Your task to perform on an android device: Open maps Image 0: 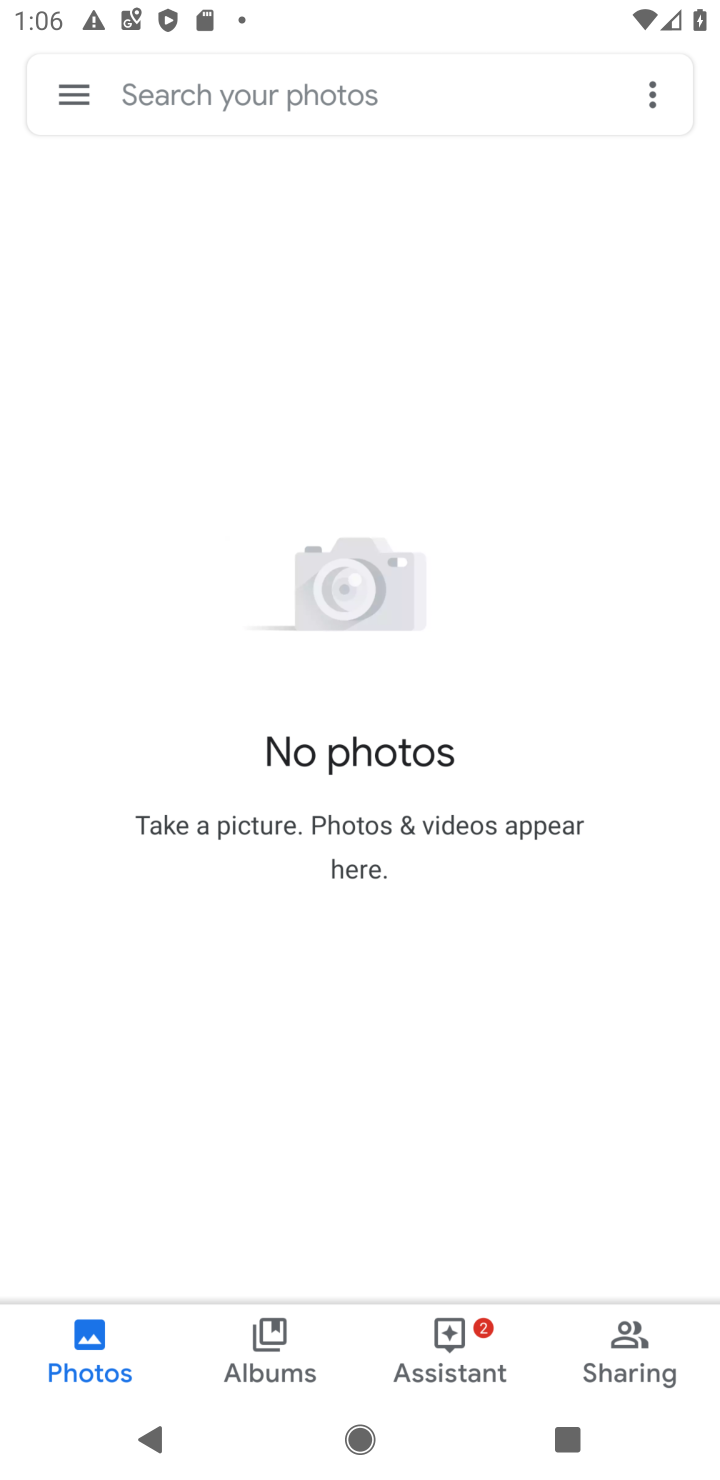
Step 0: press home button
Your task to perform on an android device: Open maps Image 1: 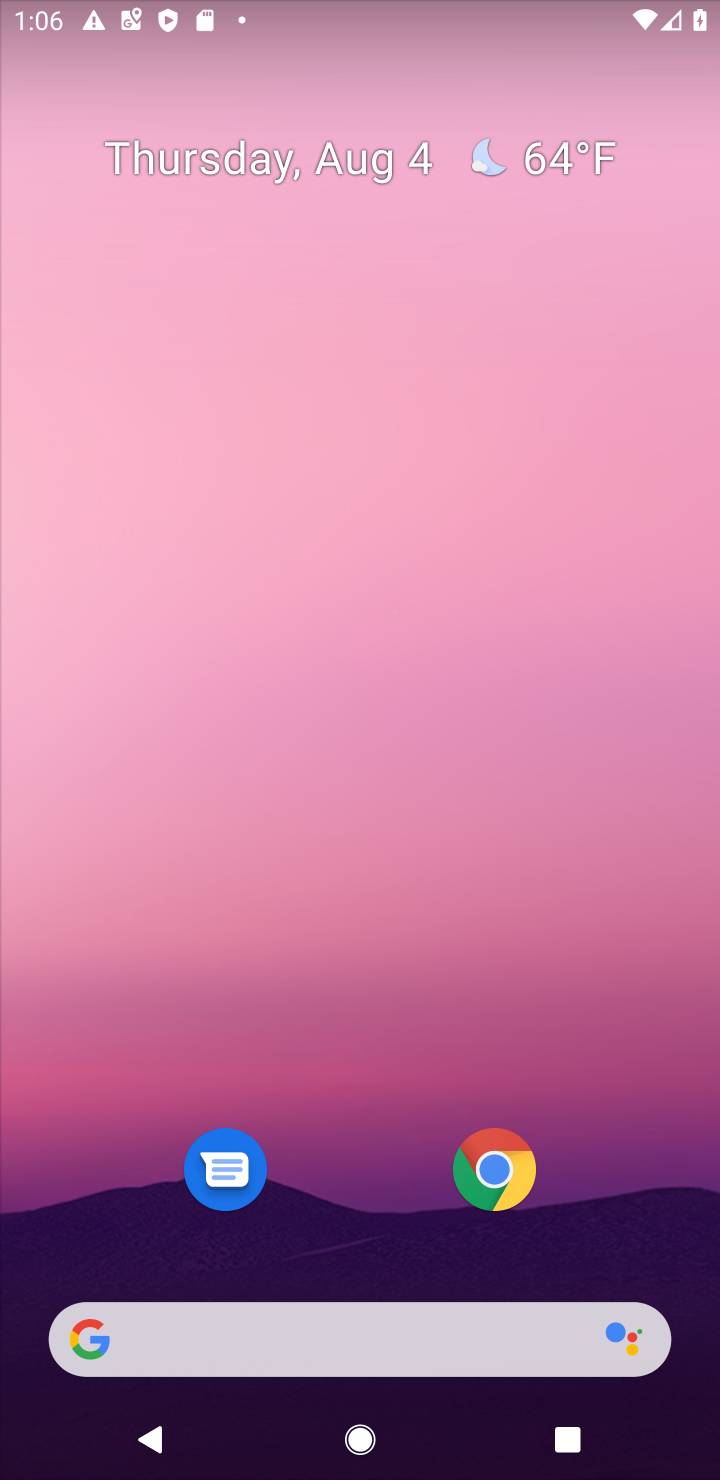
Step 1: drag from (304, 1071) to (320, 60)
Your task to perform on an android device: Open maps Image 2: 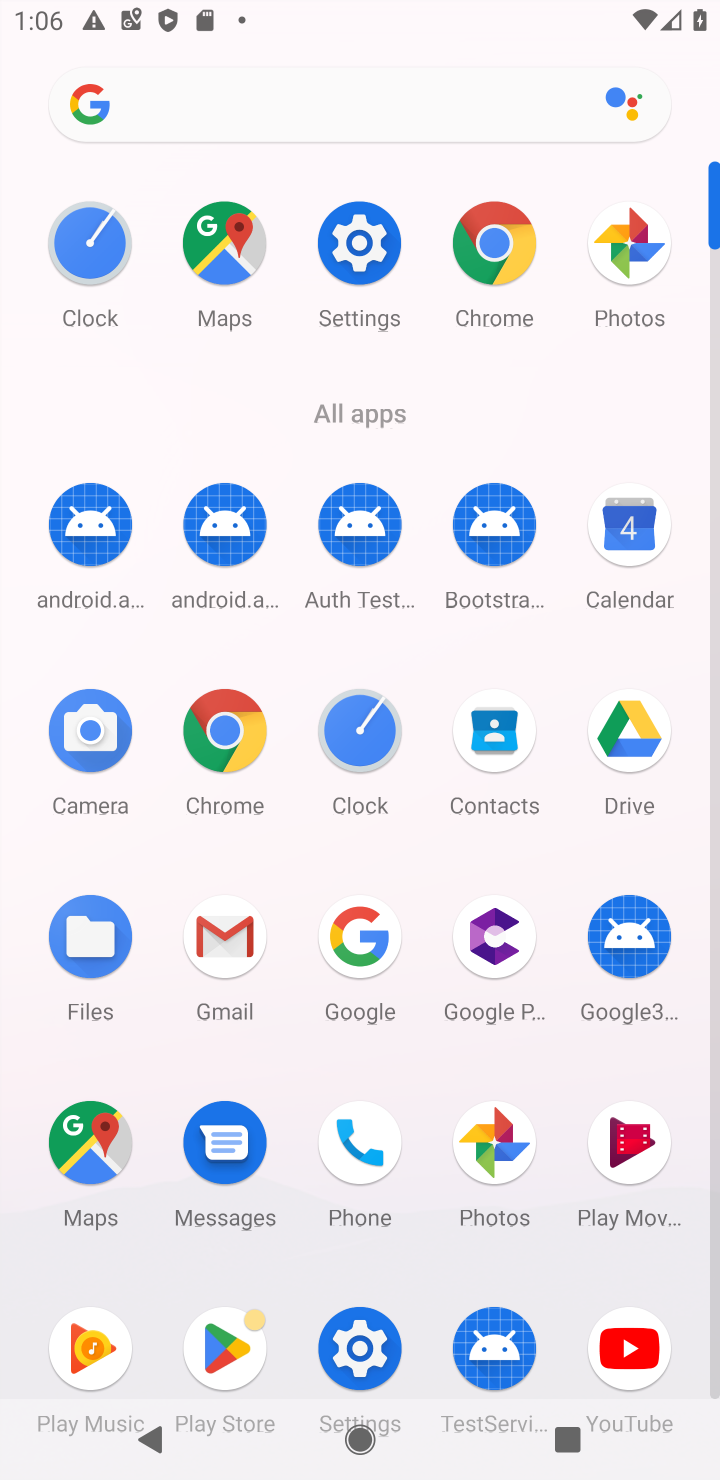
Step 2: click (232, 304)
Your task to perform on an android device: Open maps Image 3: 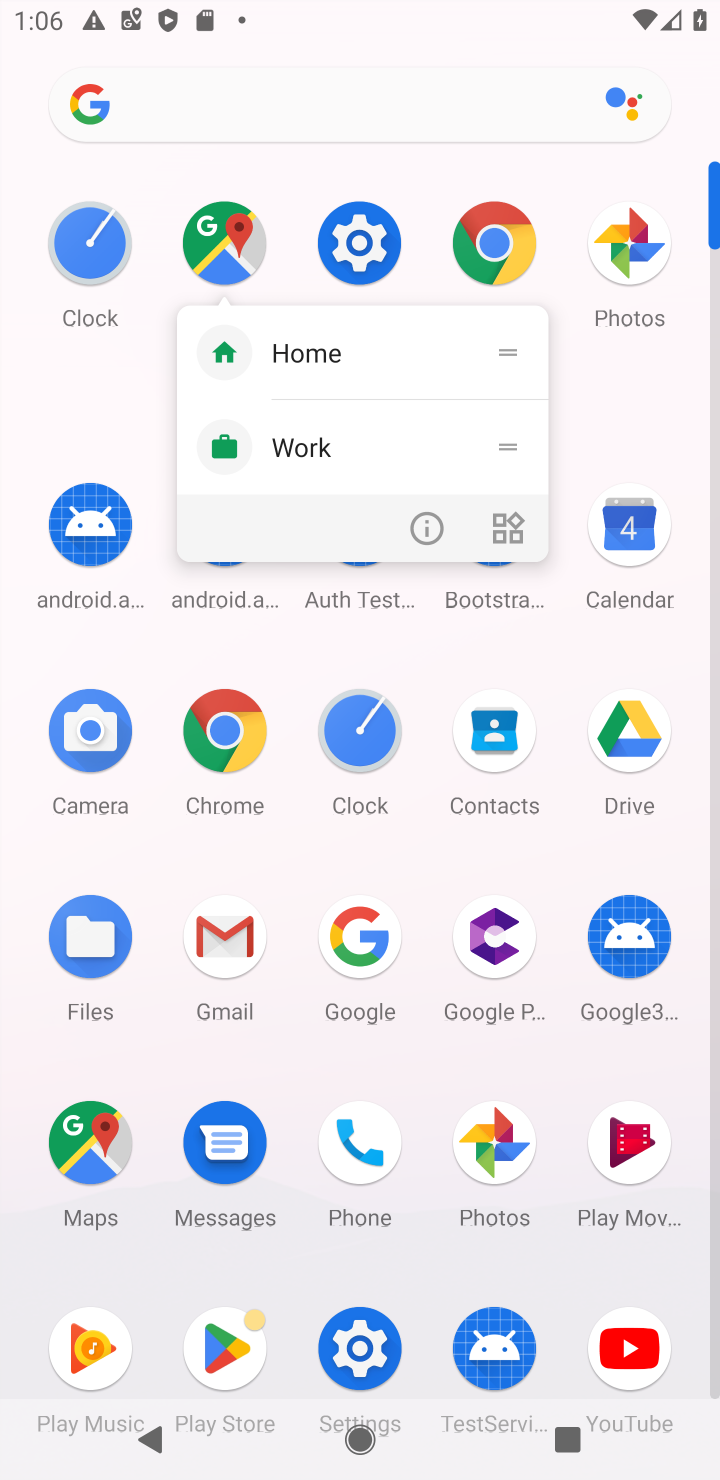
Step 3: click (79, 1157)
Your task to perform on an android device: Open maps Image 4: 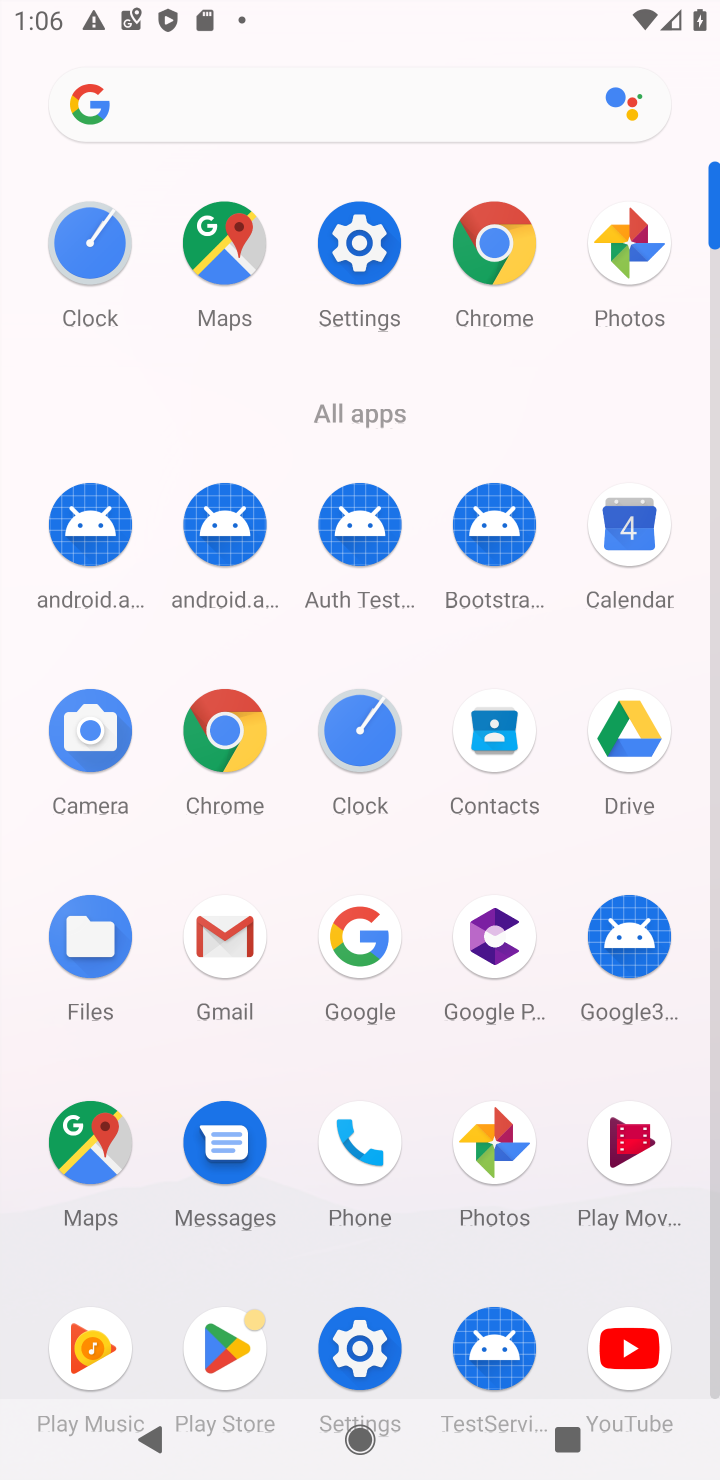
Step 4: click (71, 1186)
Your task to perform on an android device: Open maps Image 5: 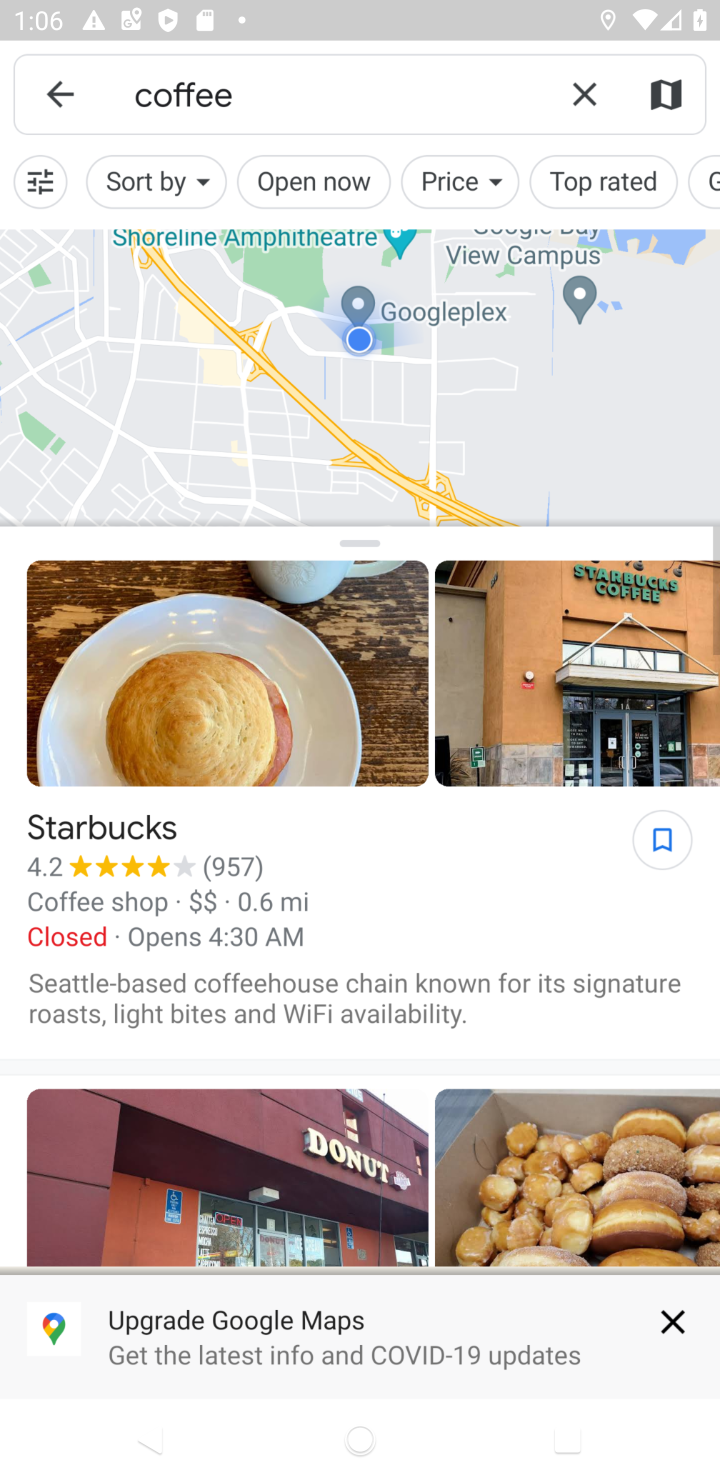
Step 5: click (43, 69)
Your task to perform on an android device: Open maps Image 6: 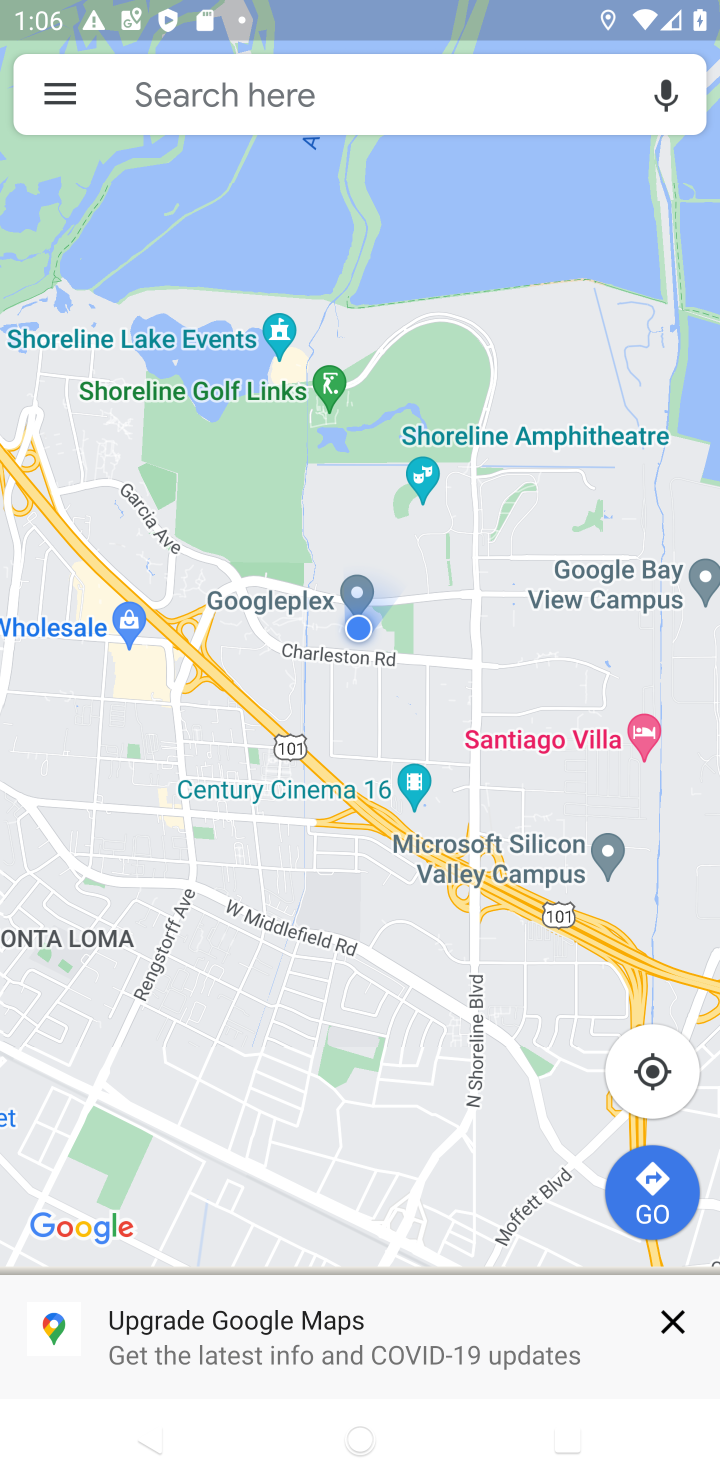
Step 6: drag from (268, 967) to (341, 784)
Your task to perform on an android device: Open maps Image 7: 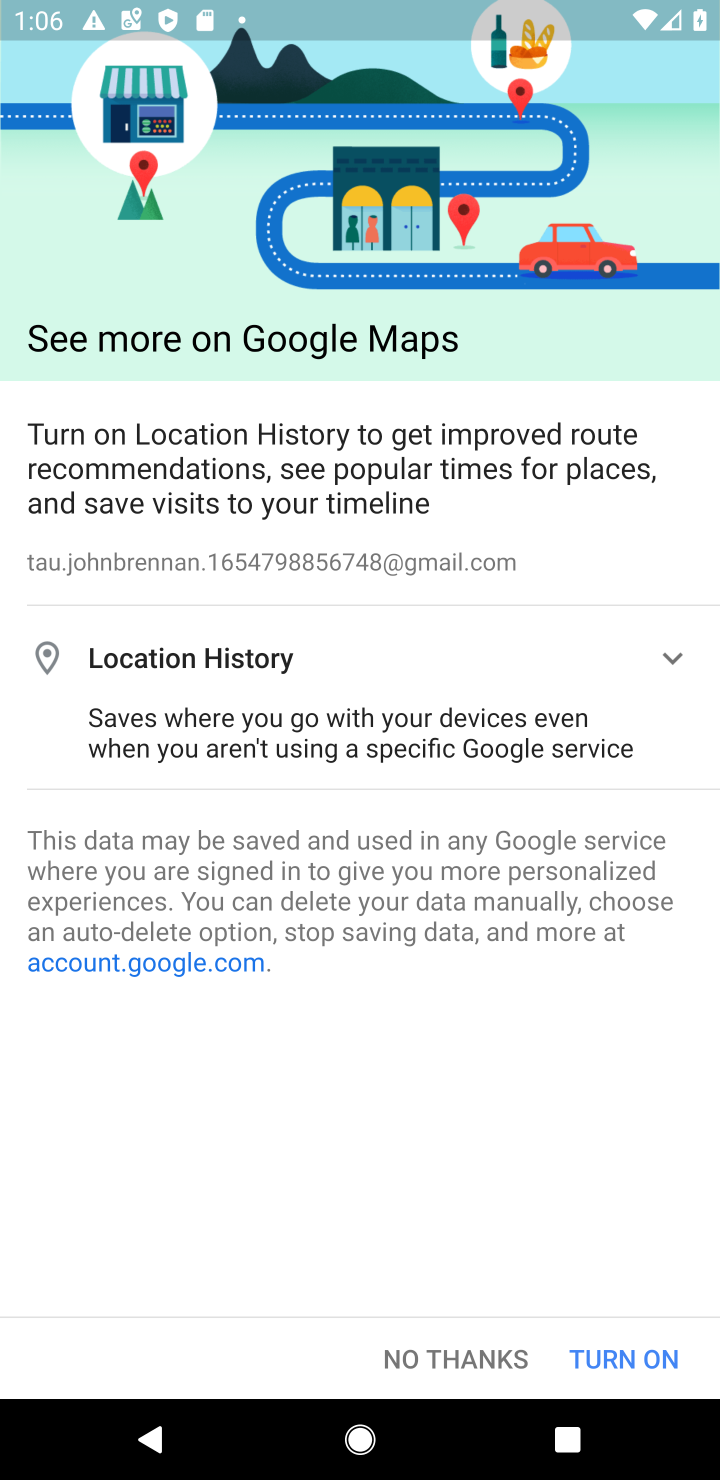
Step 7: click (464, 1356)
Your task to perform on an android device: Open maps Image 8: 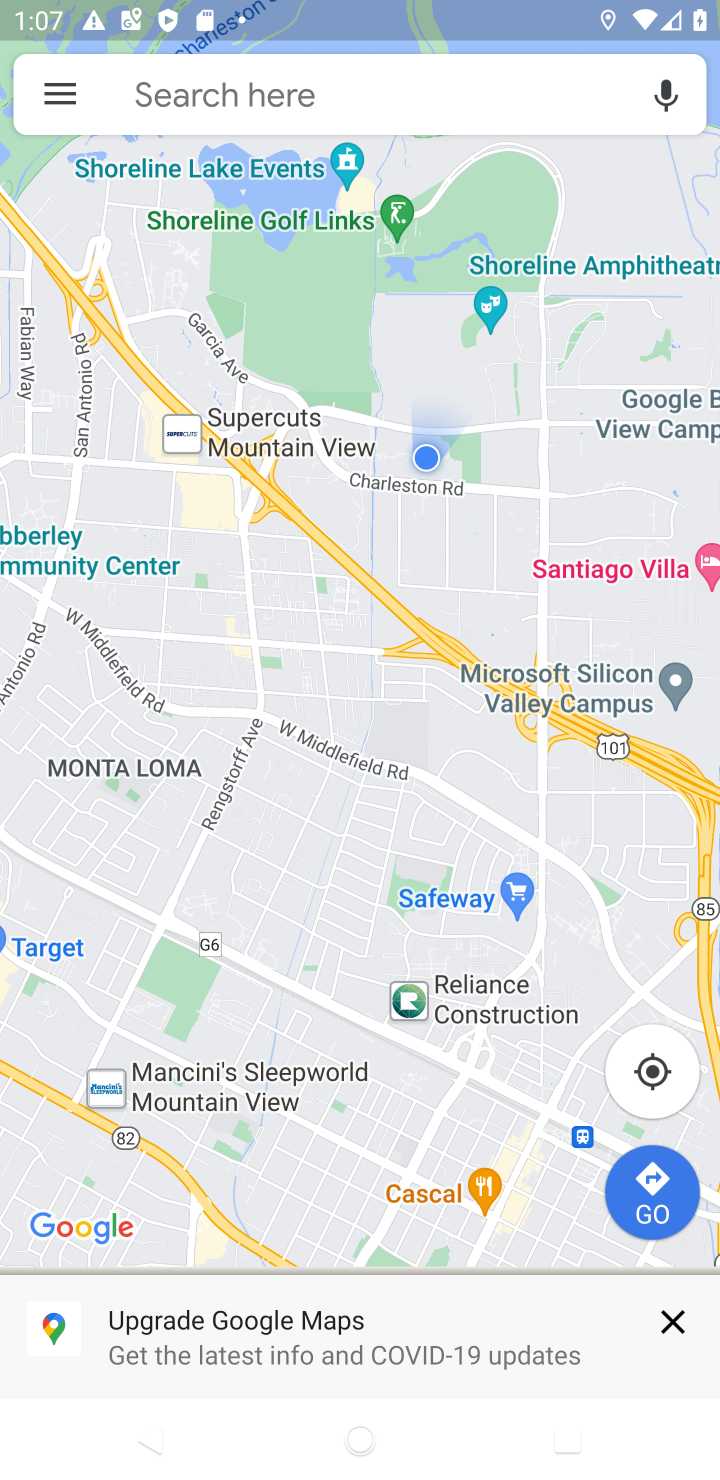
Step 8: task complete